Your task to perform on an android device: Clear all items from cart on bestbuy. Search for acer predator on bestbuy, select the first entry, and add it to the cart. Image 0: 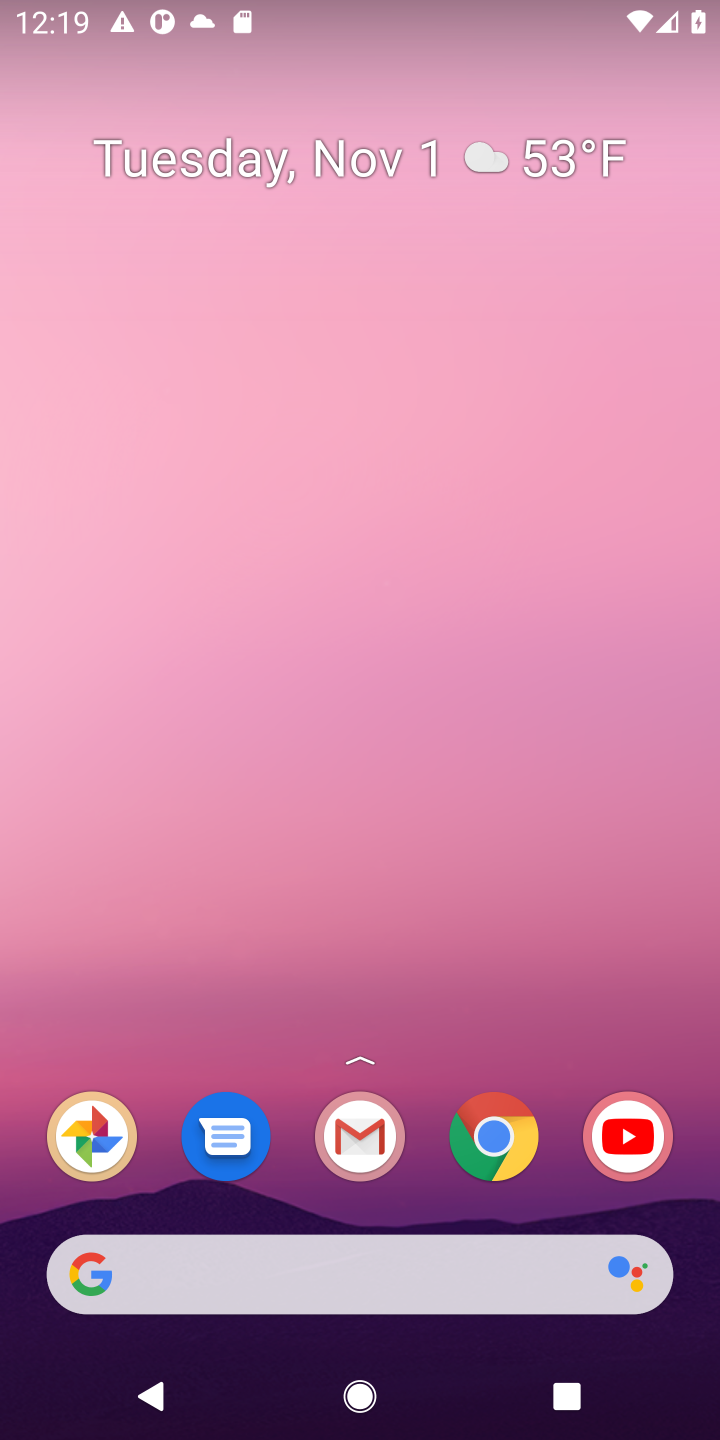
Step 0: press home button
Your task to perform on an android device: Clear all items from cart on bestbuy. Search for acer predator on bestbuy, select the first entry, and add it to the cart. Image 1: 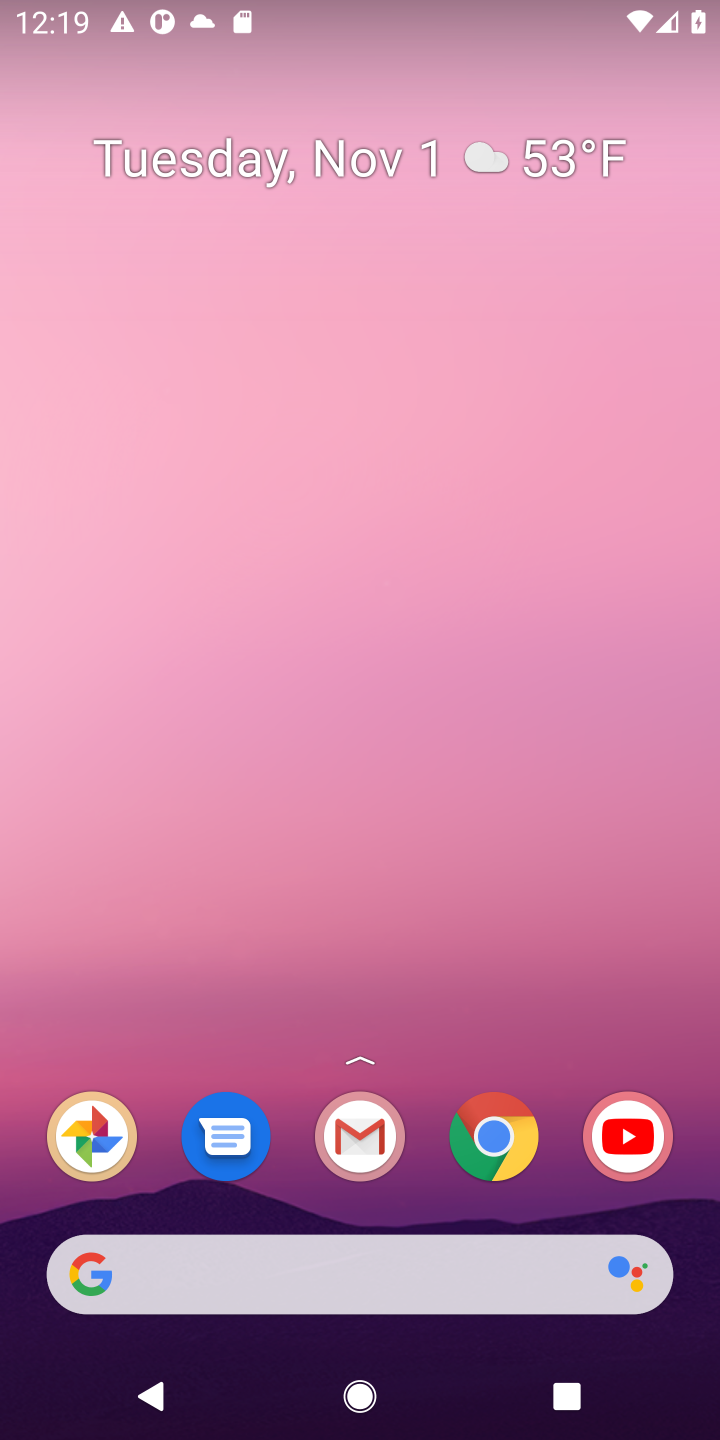
Step 1: click (126, 1281)
Your task to perform on an android device: Clear all items from cart on bestbuy. Search for acer predator on bestbuy, select the first entry, and add it to the cart. Image 2: 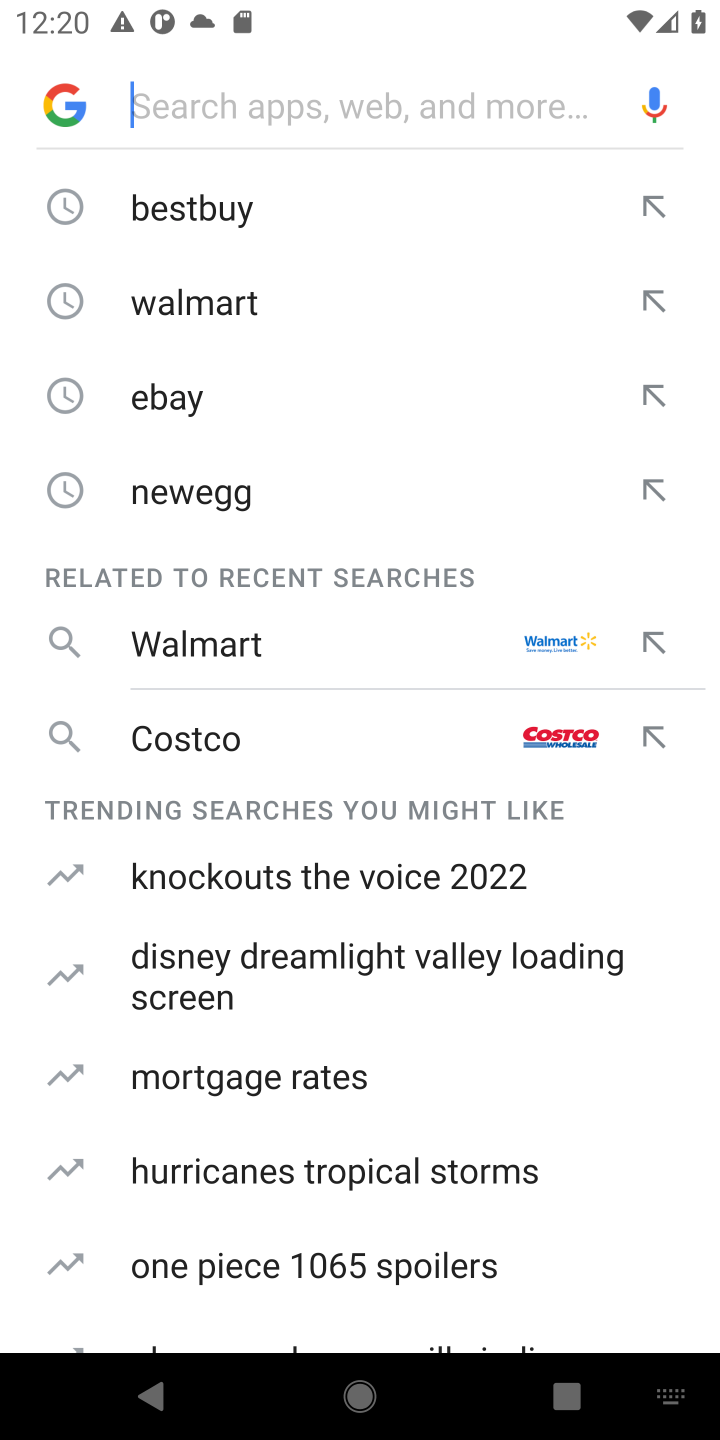
Step 2: type "bestbuy."
Your task to perform on an android device: Clear all items from cart on bestbuy. Search for acer predator on bestbuy, select the first entry, and add it to the cart. Image 3: 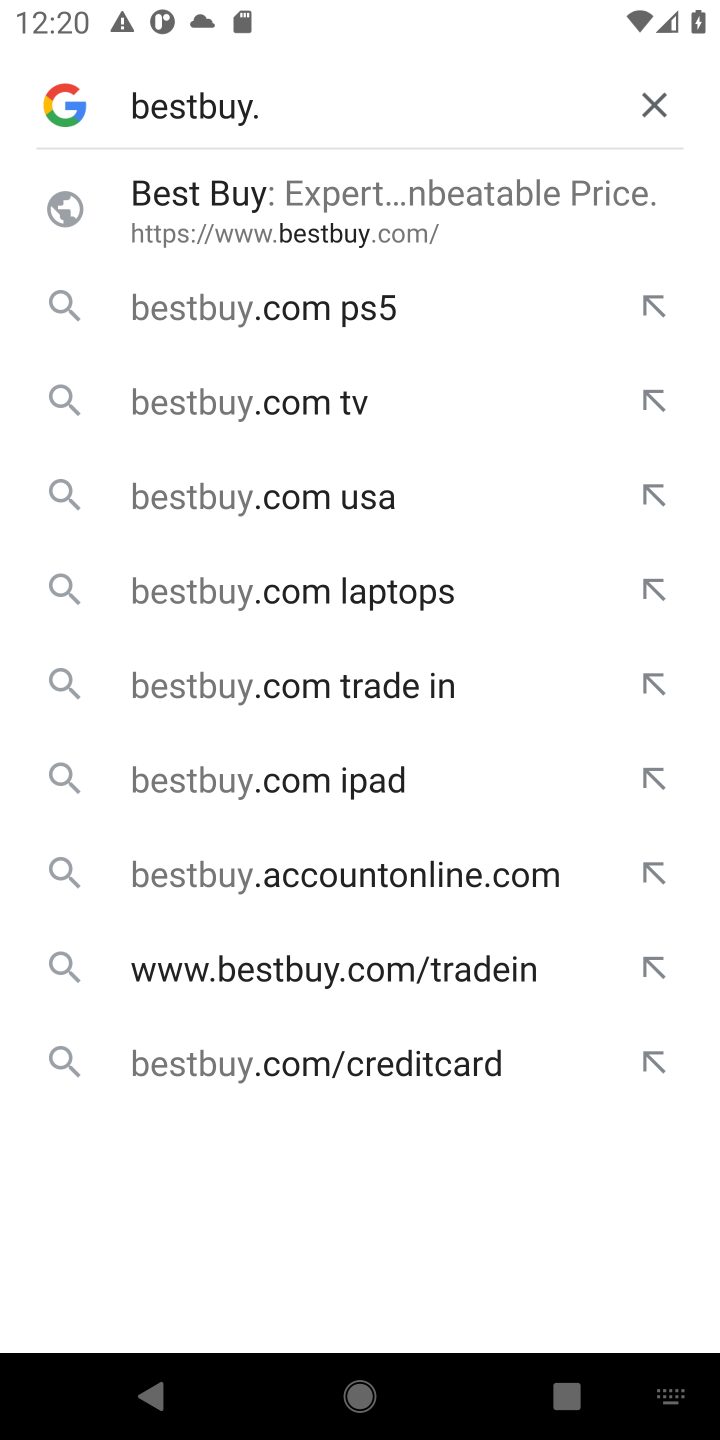
Step 3: press enter
Your task to perform on an android device: Clear all items from cart on bestbuy. Search for acer predator on bestbuy, select the first entry, and add it to the cart. Image 4: 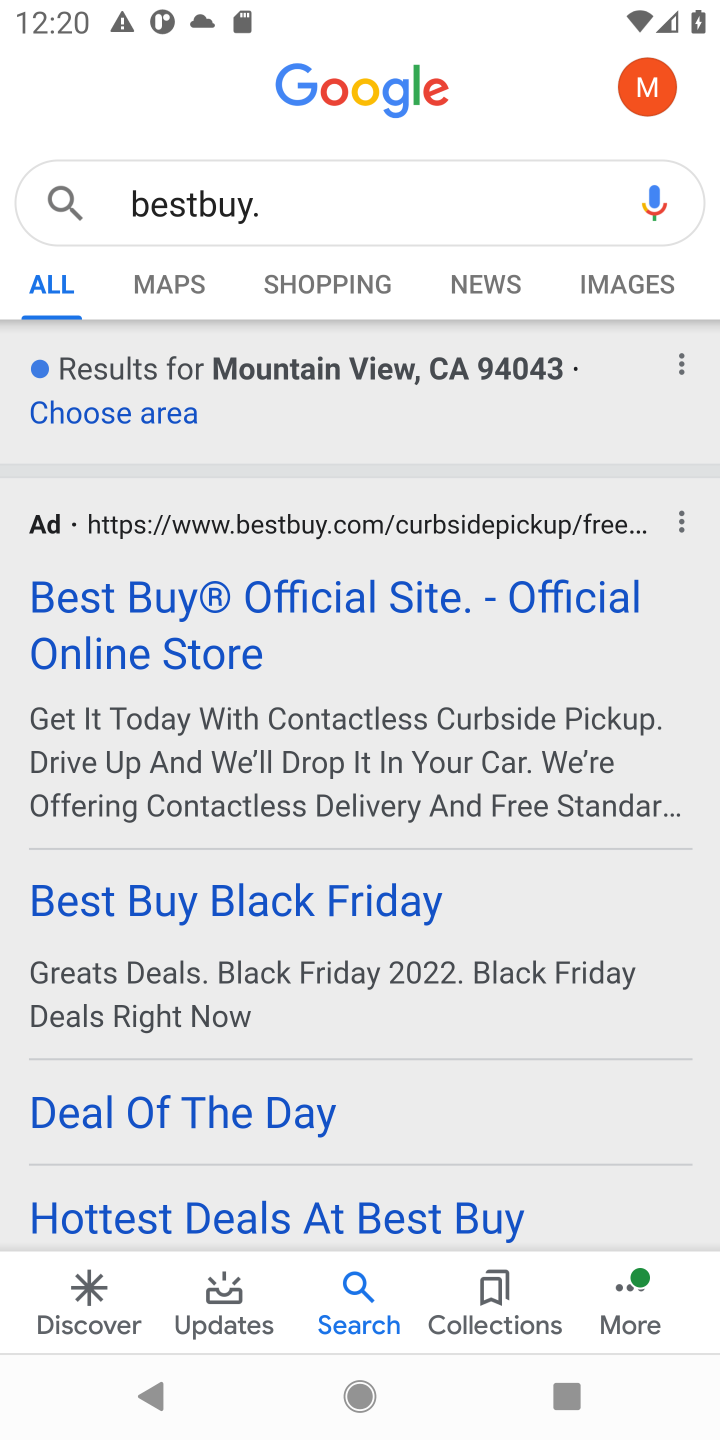
Step 4: click (284, 605)
Your task to perform on an android device: Clear all items from cart on bestbuy. Search for acer predator on bestbuy, select the first entry, and add it to the cart. Image 5: 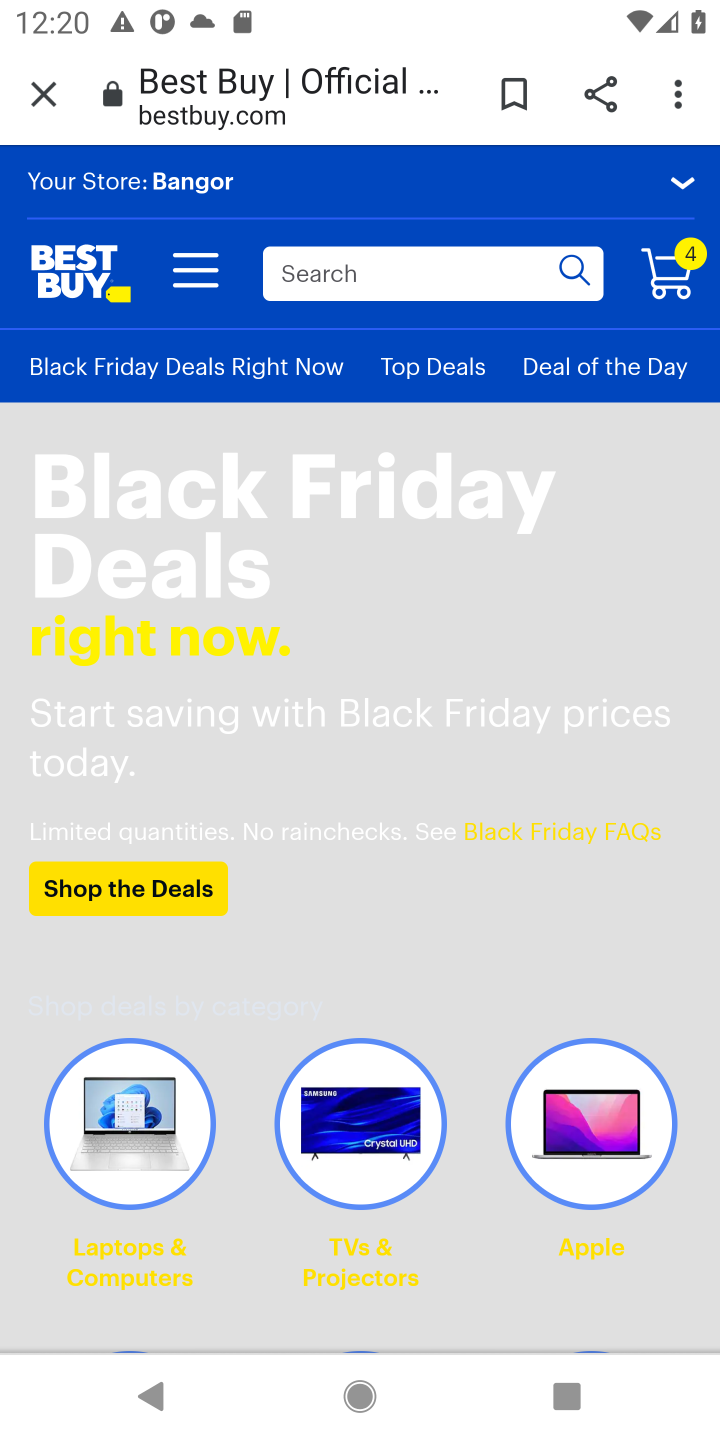
Step 5: click (675, 277)
Your task to perform on an android device: Clear all items from cart on bestbuy. Search for acer predator on bestbuy, select the first entry, and add it to the cart. Image 6: 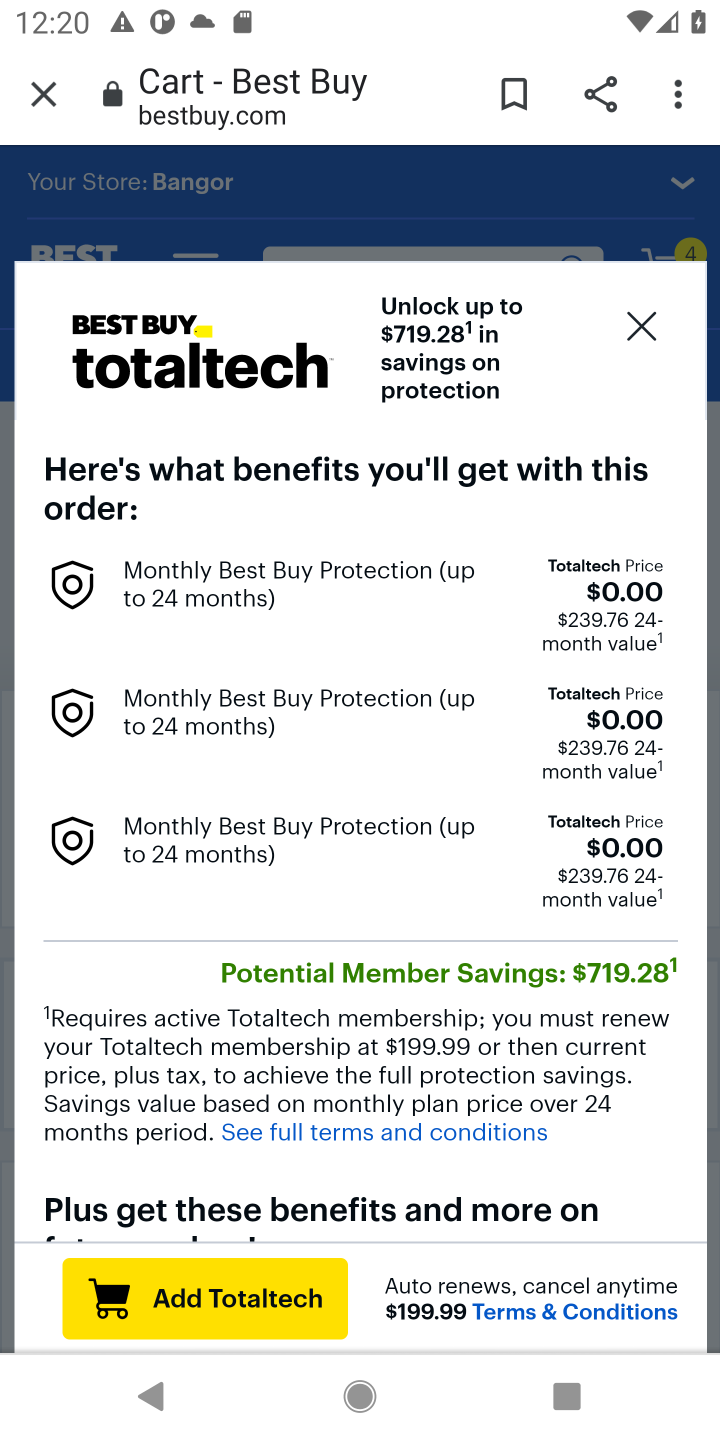
Step 6: click (630, 323)
Your task to perform on an android device: Clear all items from cart on bestbuy. Search for acer predator on bestbuy, select the first entry, and add it to the cart. Image 7: 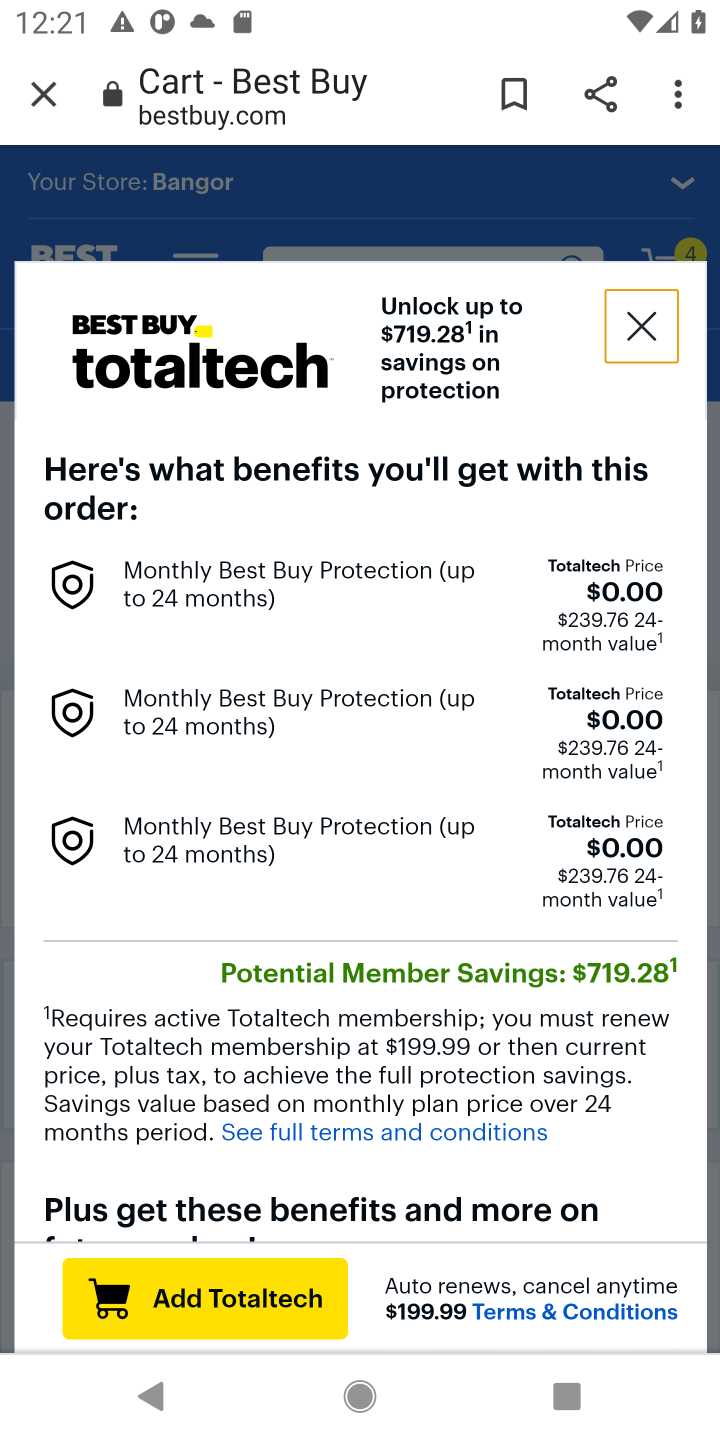
Step 7: click (640, 315)
Your task to perform on an android device: Clear all items from cart on bestbuy. Search for acer predator on bestbuy, select the first entry, and add it to the cart. Image 8: 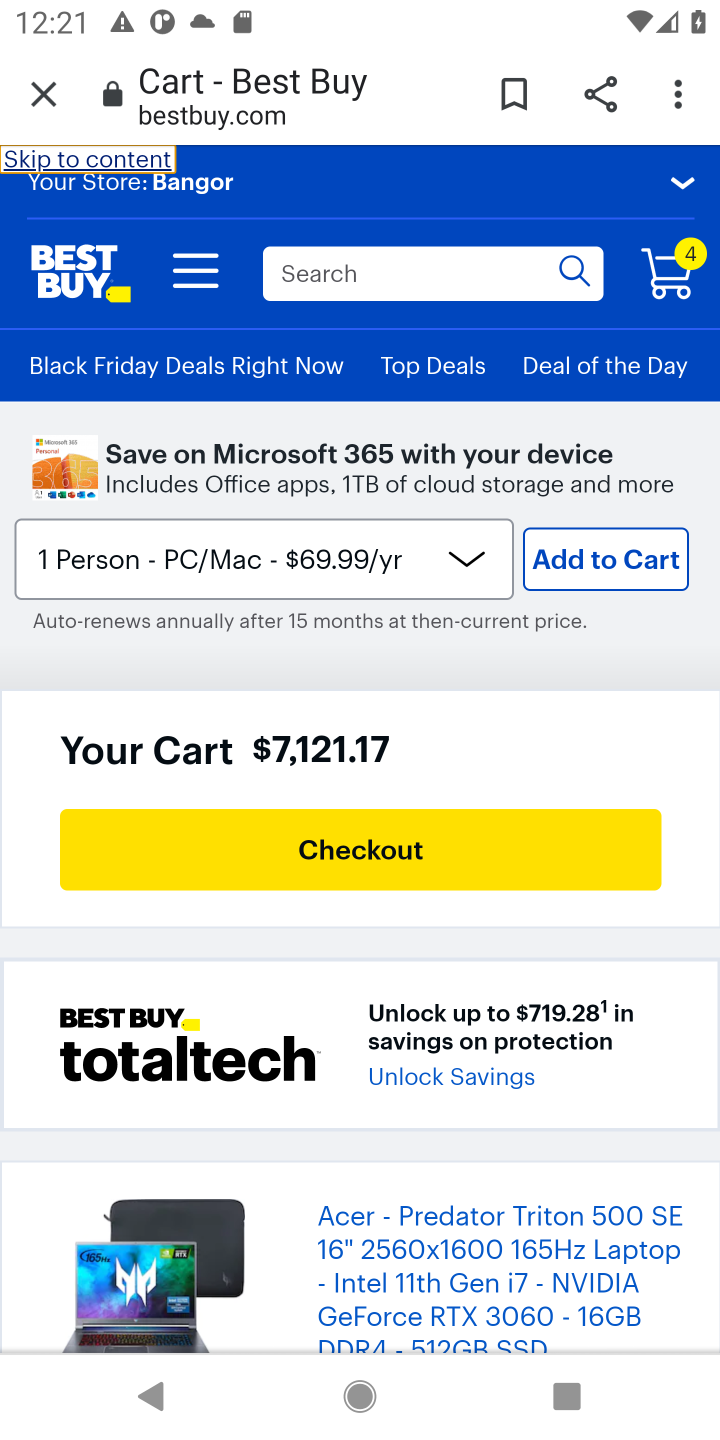
Step 8: drag from (406, 1026) to (378, 697)
Your task to perform on an android device: Clear all items from cart on bestbuy. Search for acer predator on bestbuy, select the first entry, and add it to the cart. Image 9: 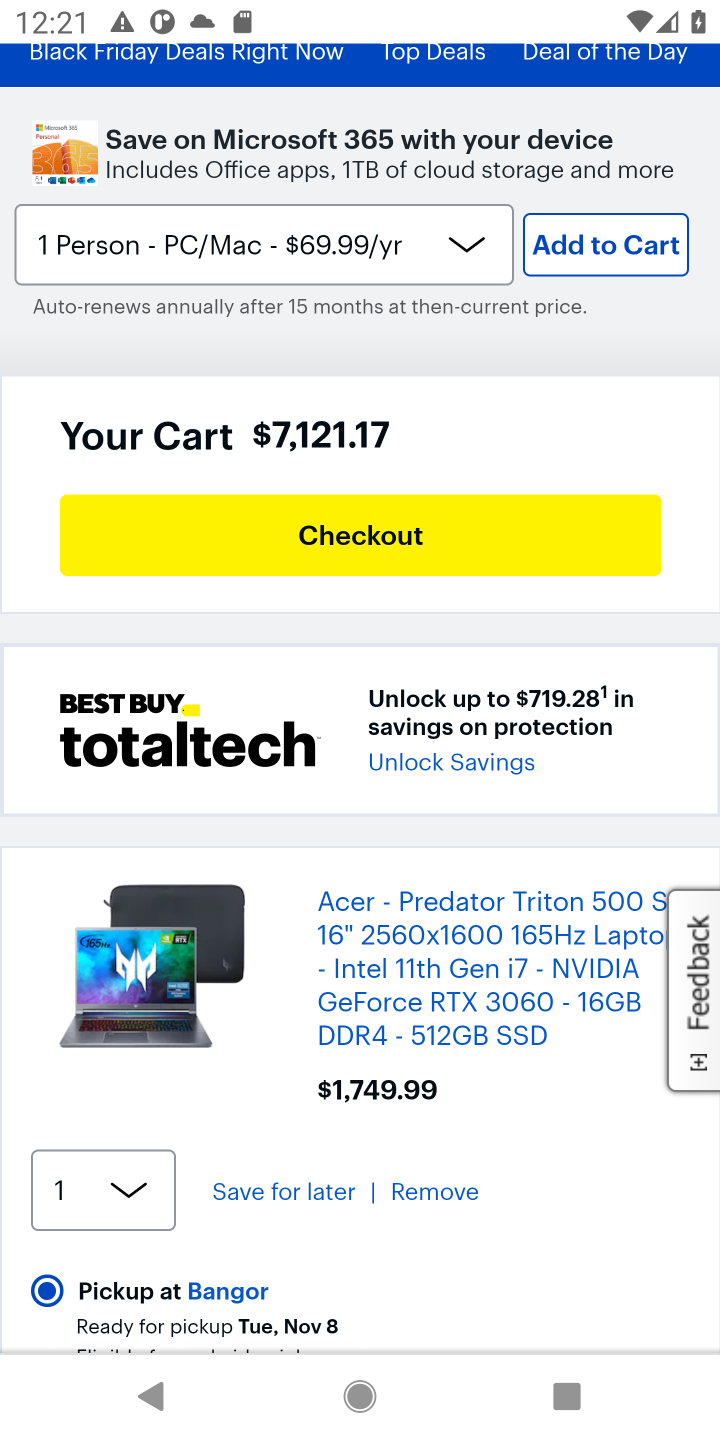
Step 9: click (441, 1191)
Your task to perform on an android device: Clear all items from cart on bestbuy. Search for acer predator on bestbuy, select the first entry, and add it to the cart. Image 10: 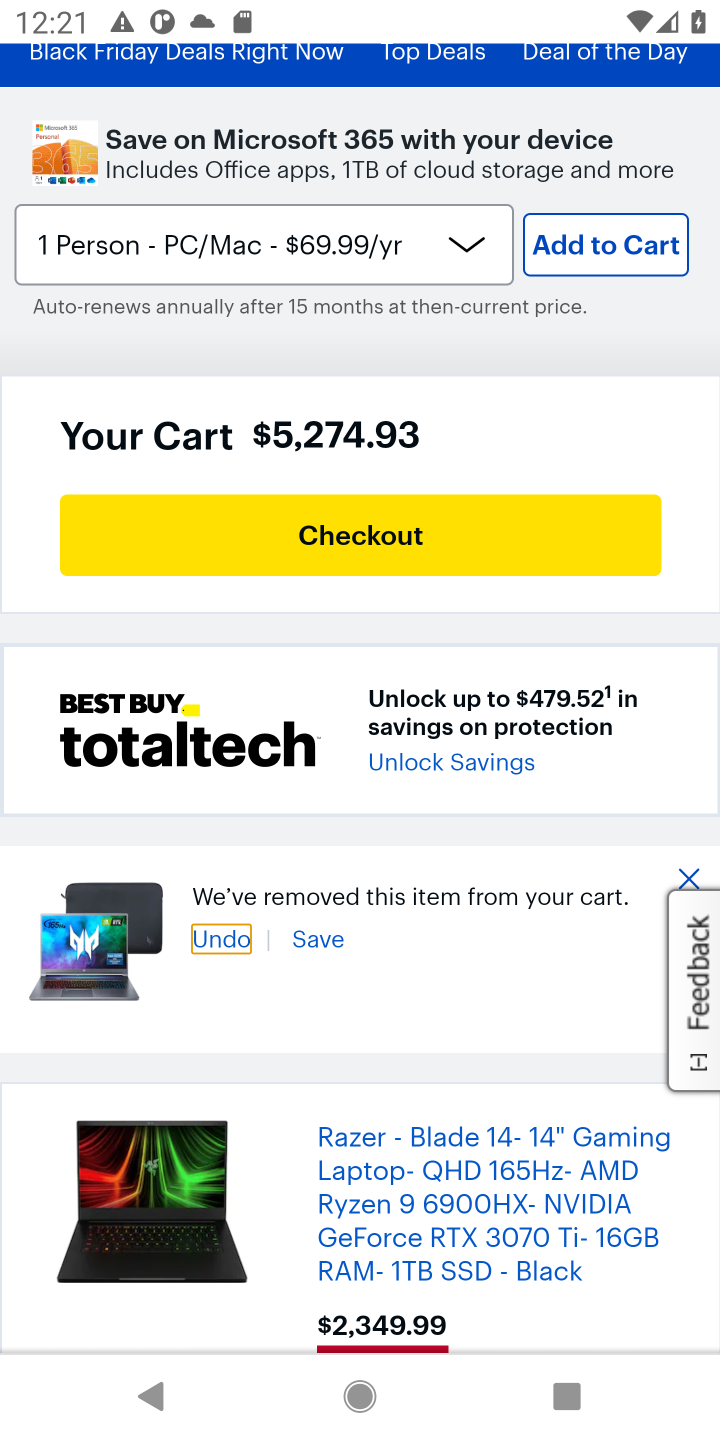
Step 10: drag from (436, 1220) to (426, 746)
Your task to perform on an android device: Clear all items from cart on bestbuy. Search for acer predator on bestbuy, select the first entry, and add it to the cart. Image 11: 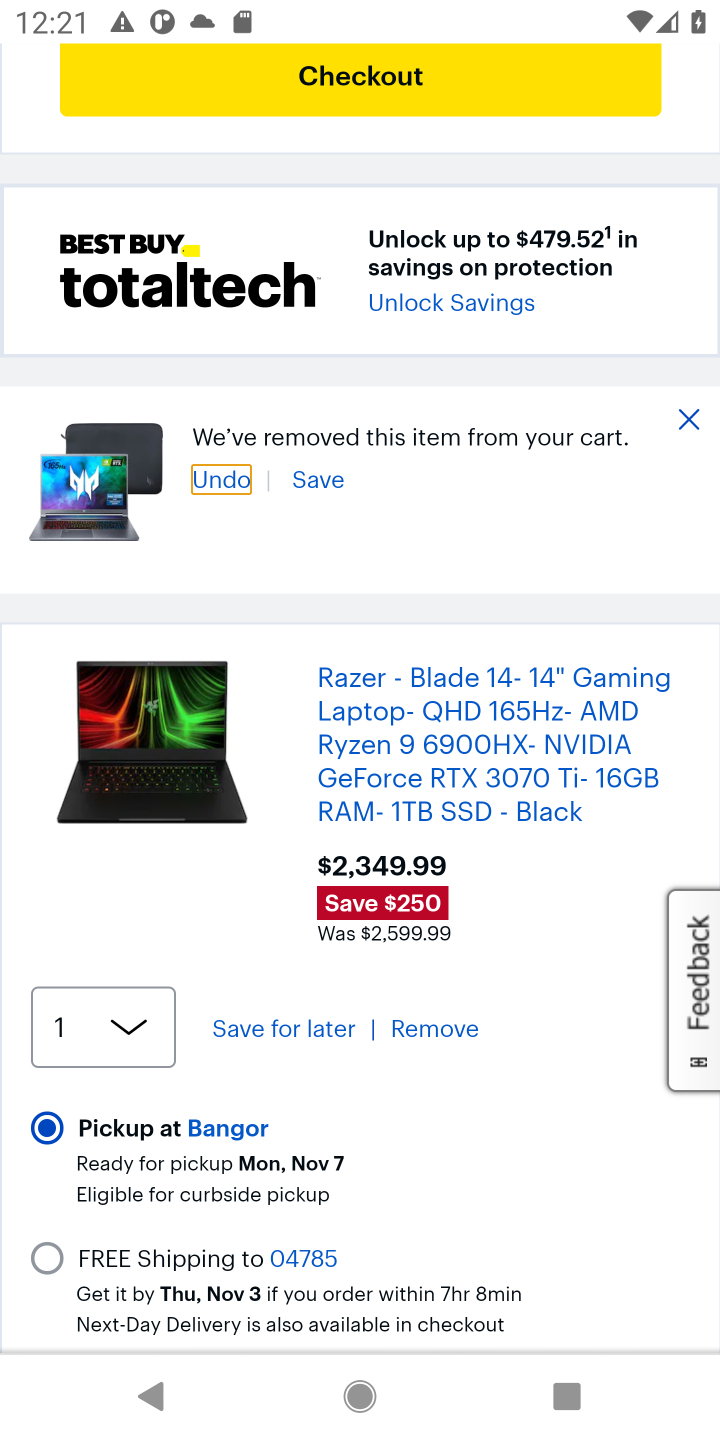
Step 11: click (428, 1024)
Your task to perform on an android device: Clear all items from cart on bestbuy. Search for acer predator on bestbuy, select the first entry, and add it to the cart. Image 12: 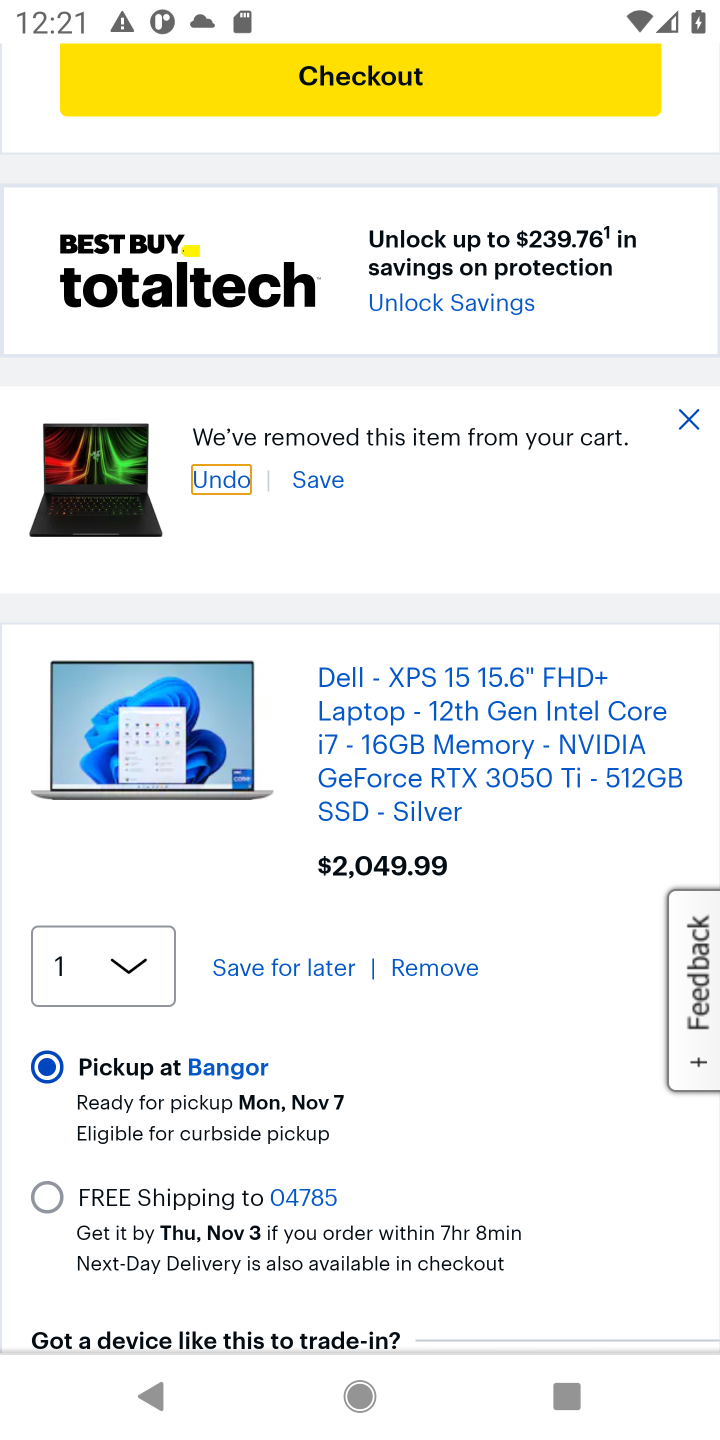
Step 12: click (433, 962)
Your task to perform on an android device: Clear all items from cart on bestbuy. Search for acer predator on bestbuy, select the first entry, and add it to the cart. Image 13: 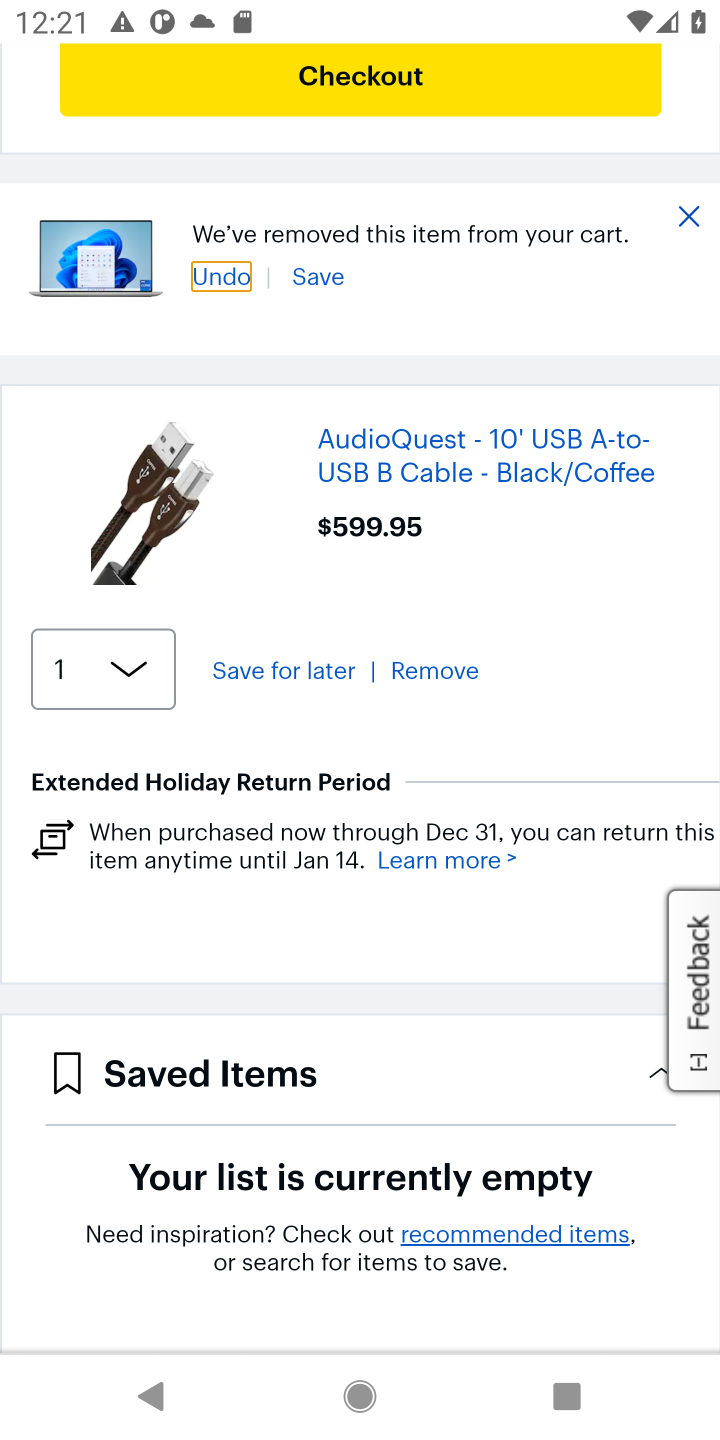
Step 13: click (426, 660)
Your task to perform on an android device: Clear all items from cart on bestbuy. Search for acer predator on bestbuy, select the first entry, and add it to the cart. Image 14: 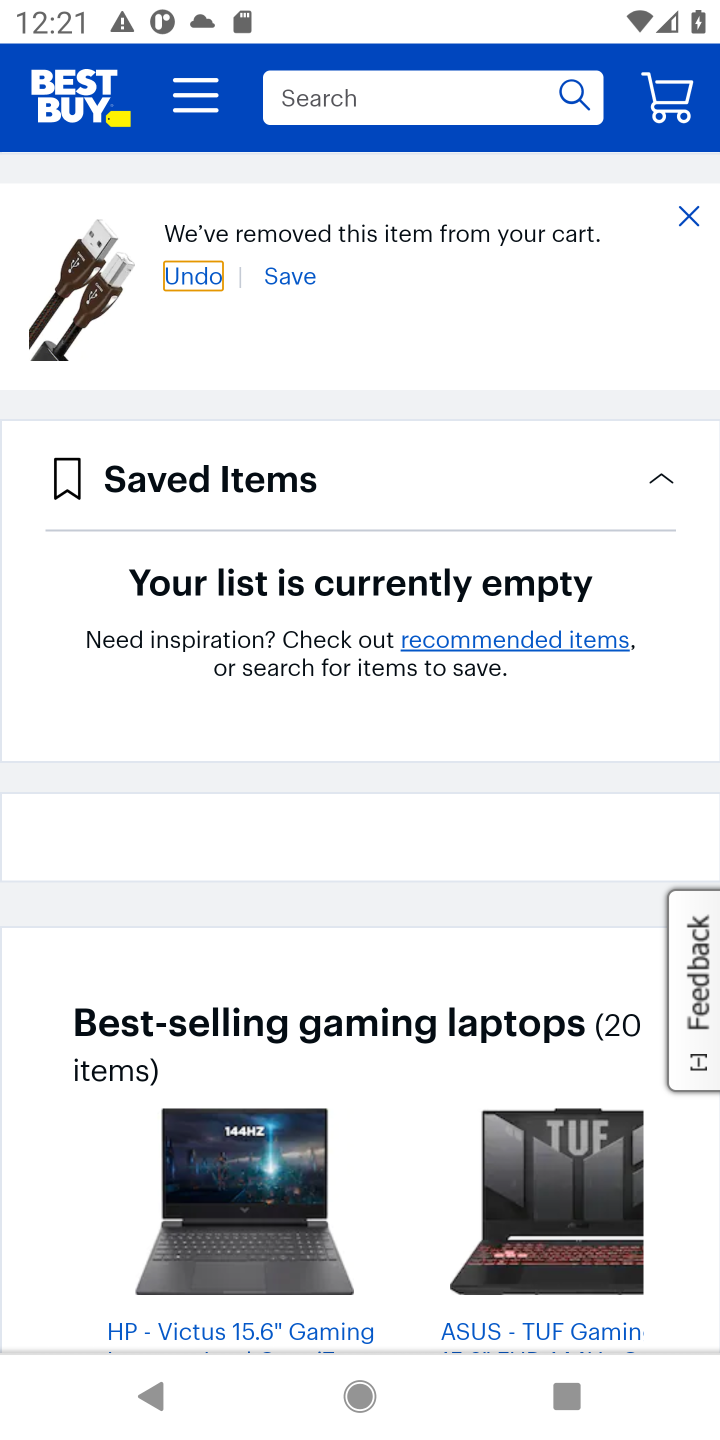
Step 14: click (354, 91)
Your task to perform on an android device: Clear all items from cart on bestbuy. Search for acer predator on bestbuy, select the first entry, and add it to the cart. Image 15: 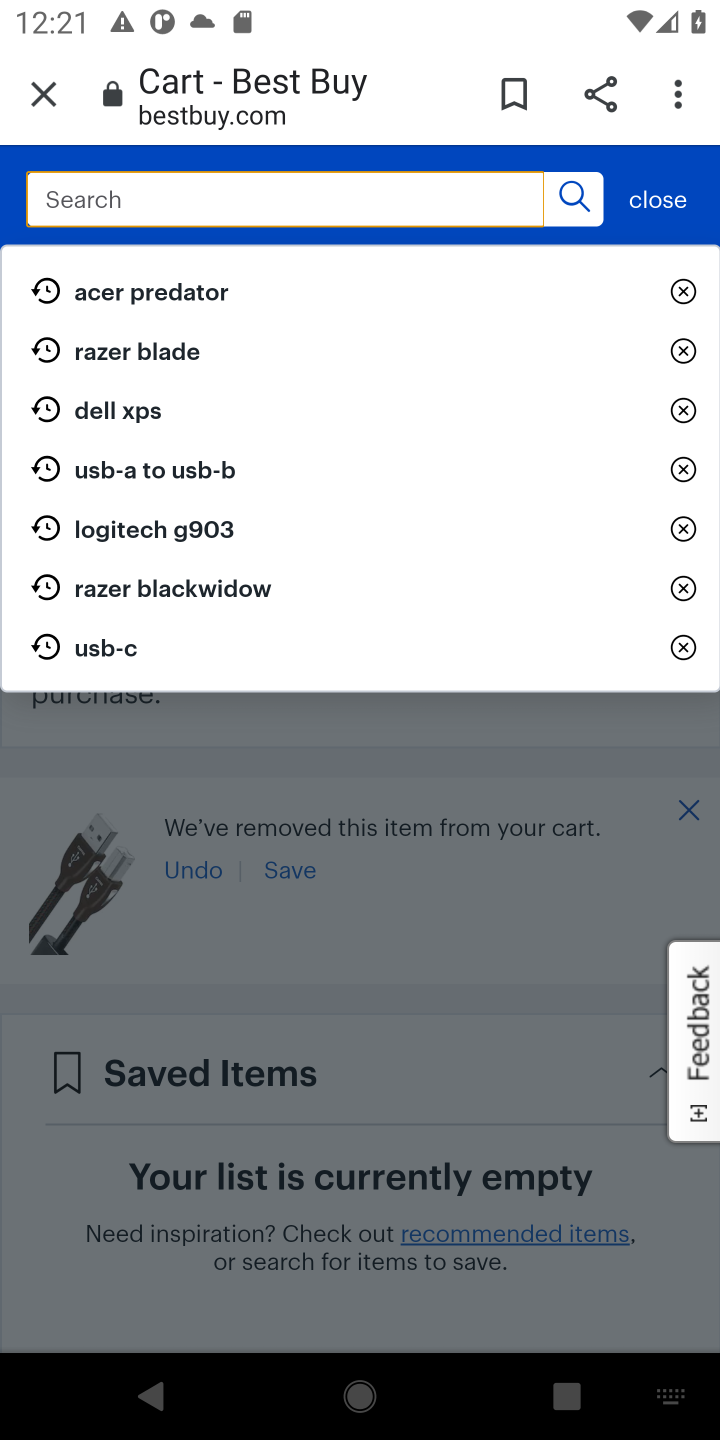
Step 15: click (133, 294)
Your task to perform on an android device: Clear all items from cart on bestbuy. Search for acer predator on bestbuy, select the first entry, and add it to the cart. Image 16: 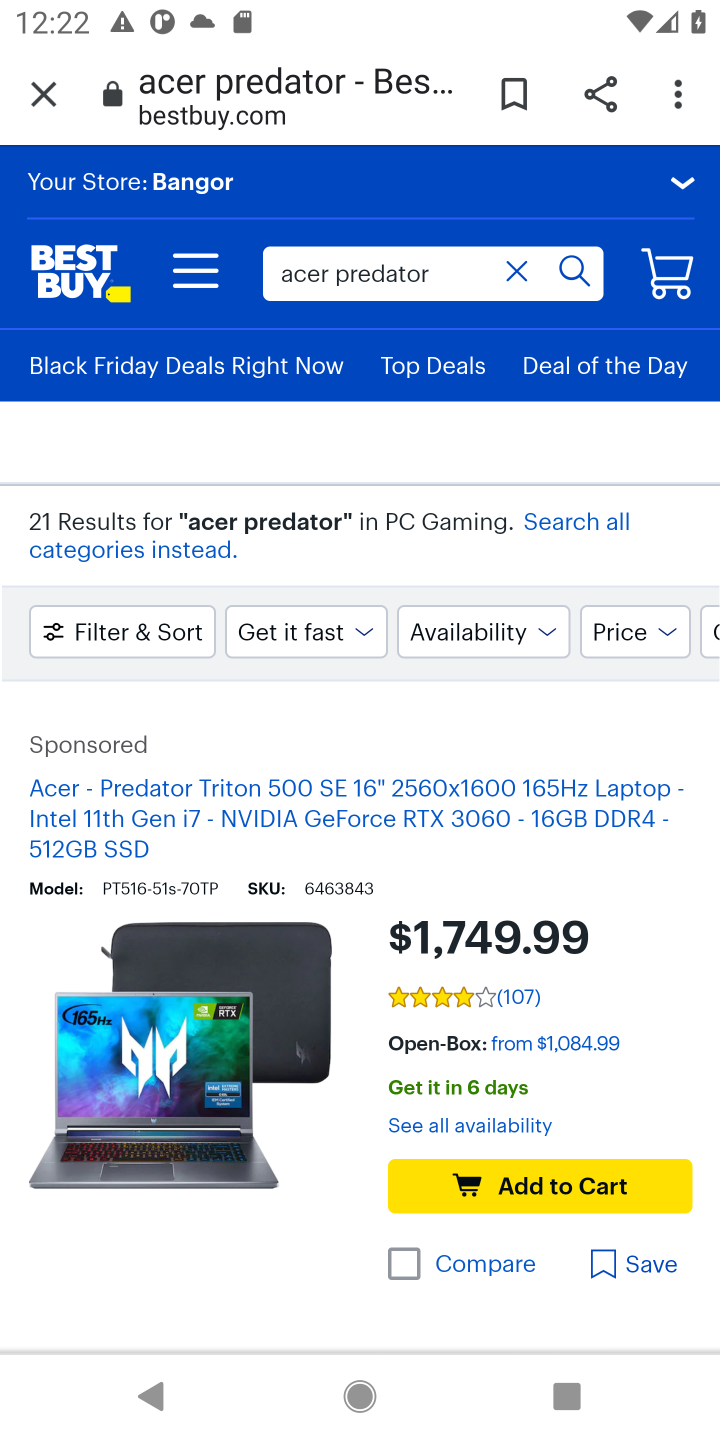
Step 16: click (578, 1180)
Your task to perform on an android device: Clear all items from cart on bestbuy. Search for acer predator on bestbuy, select the first entry, and add it to the cart. Image 17: 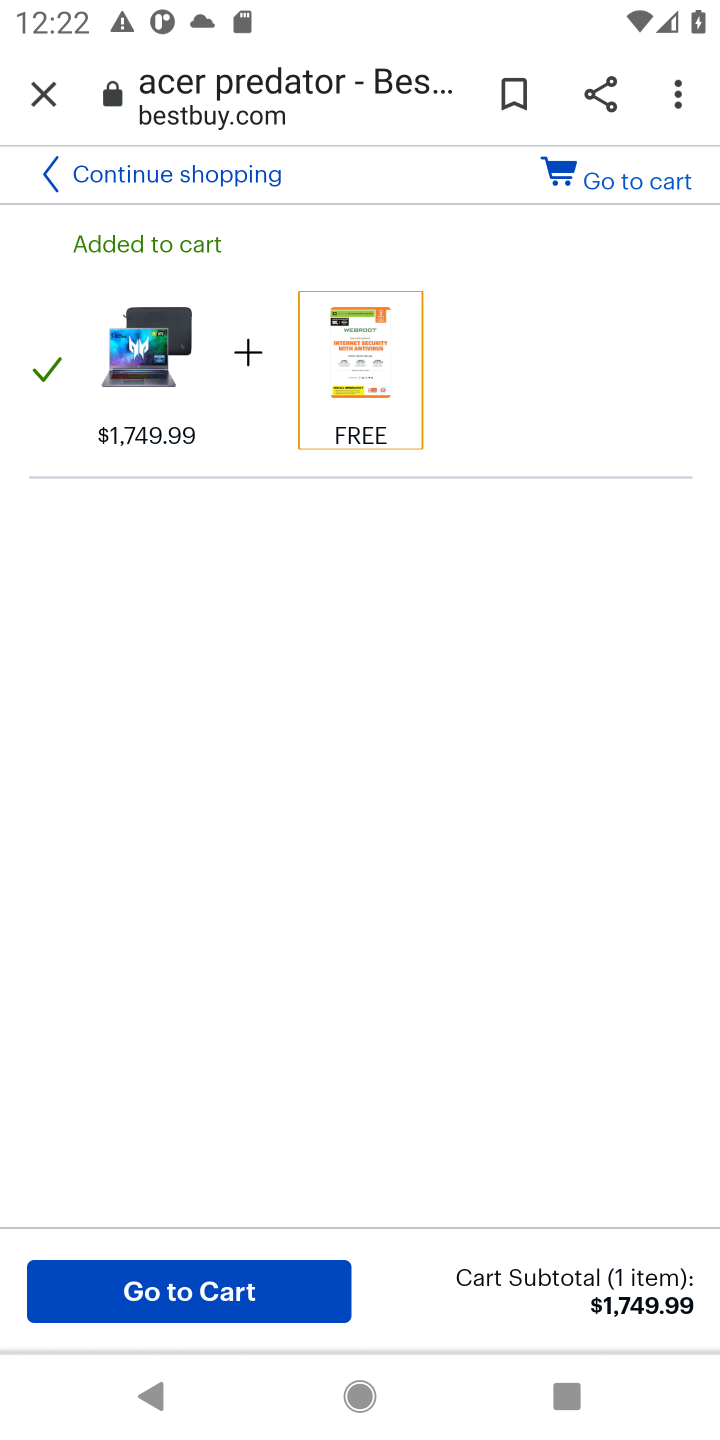
Step 17: task complete